Your task to perform on an android device: Go to accessibility settings Image 0: 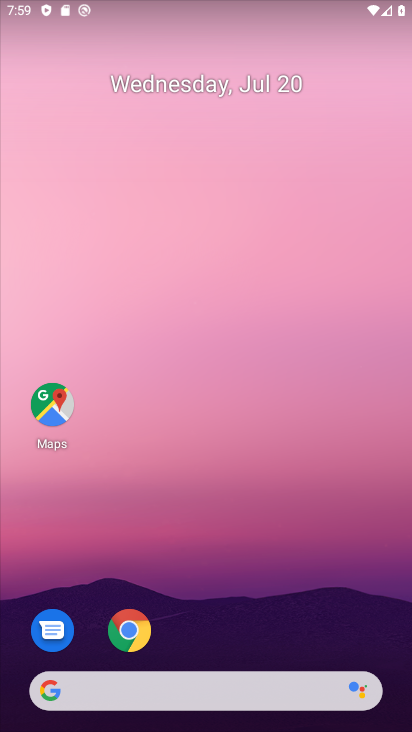
Step 0: drag from (396, 509) to (405, 116)
Your task to perform on an android device: Go to accessibility settings Image 1: 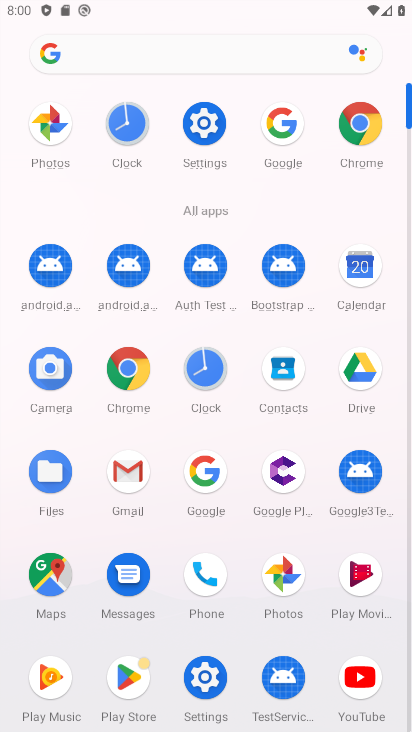
Step 1: click (197, 673)
Your task to perform on an android device: Go to accessibility settings Image 2: 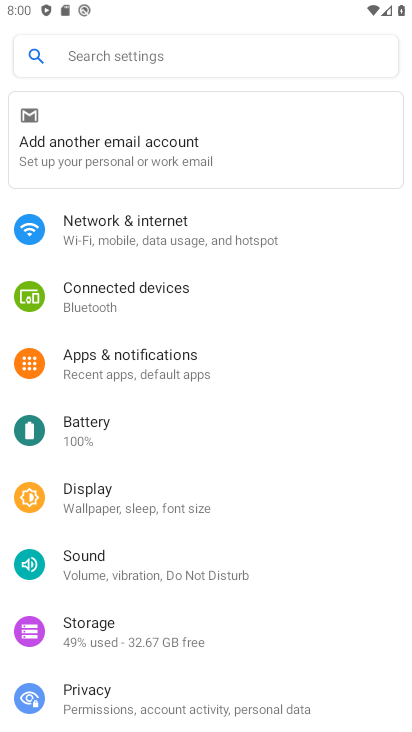
Step 2: drag from (364, 701) to (366, 189)
Your task to perform on an android device: Go to accessibility settings Image 3: 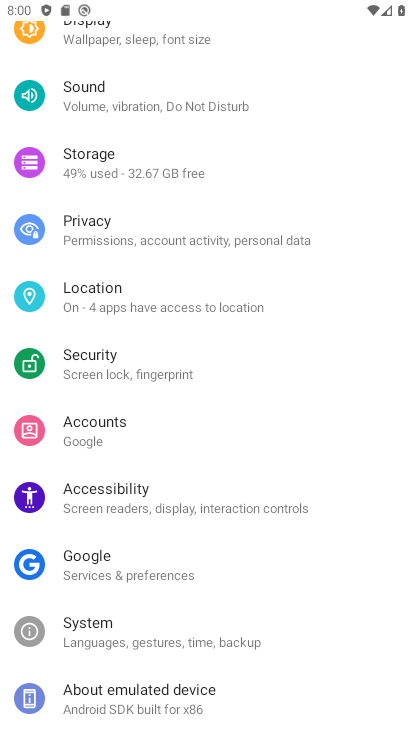
Step 3: click (103, 494)
Your task to perform on an android device: Go to accessibility settings Image 4: 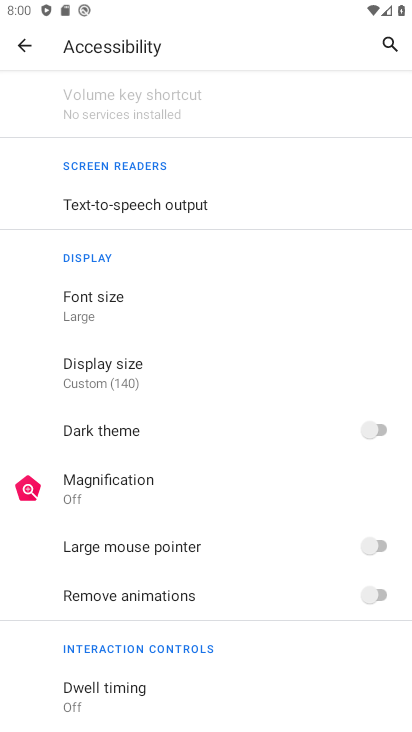
Step 4: task complete